Your task to perform on an android device: toggle priority inbox in the gmail app Image 0: 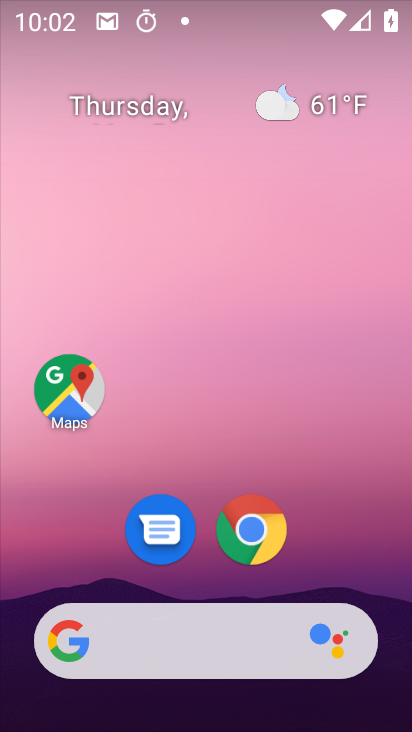
Step 0: drag from (372, 357) to (372, 174)
Your task to perform on an android device: toggle priority inbox in the gmail app Image 1: 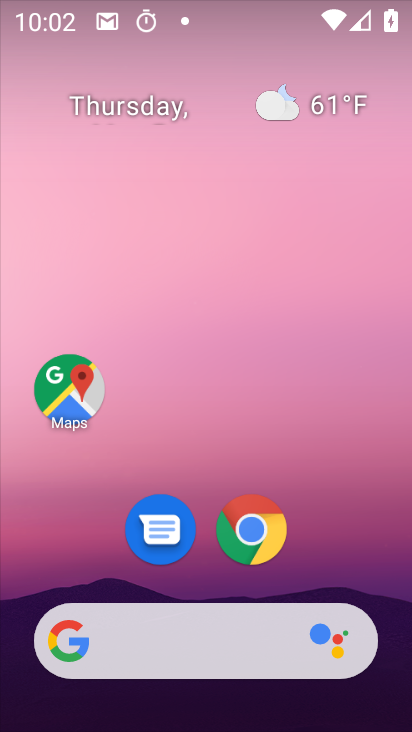
Step 1: drag from (393, 626) to (373, 262)
Your task to perform on an android device: toggle priority inbox in the gmail app Image 2: 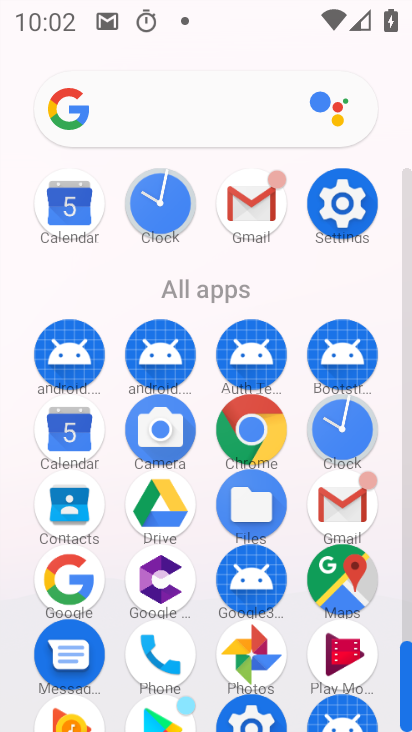
Step 2: click (354, 496)
Your task to perform on an android device: toggle priority inbox in the gmail app Image 3: 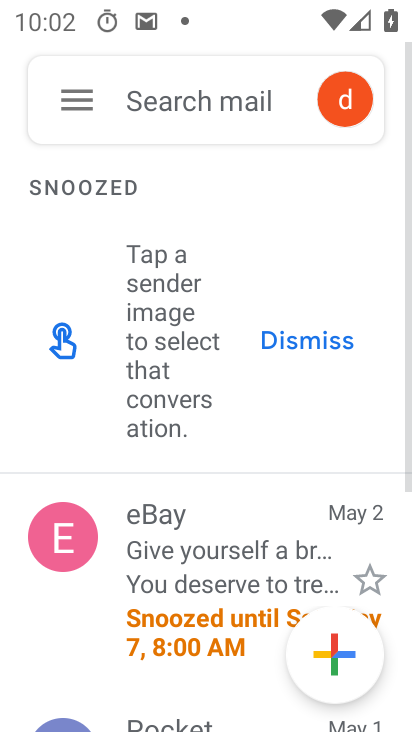
Step 3: click (90, 103)
Your task to perform on an android device: toggle priority inbox in the gmail app Image 4: 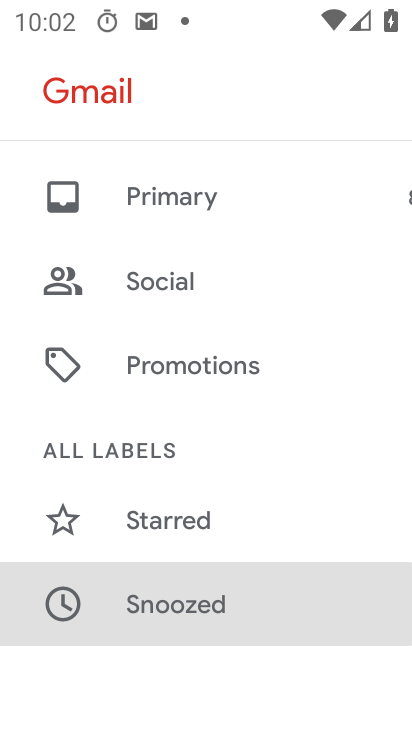
Step 4: drag from (319, 544) to (327, 168)
Your task to perform on an android device: toggle priority inbox in the gmail app Image 5: 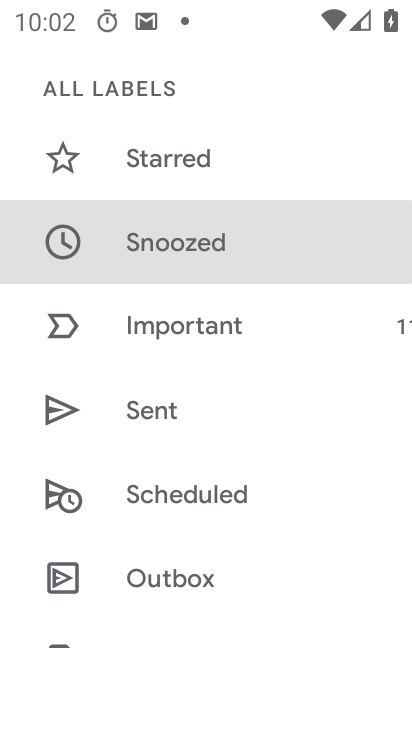
Step 5: drag from (325, 508) to (322, 297)
Your task to perform on an android device: toggle priority inbox in the gmail app Image 6: 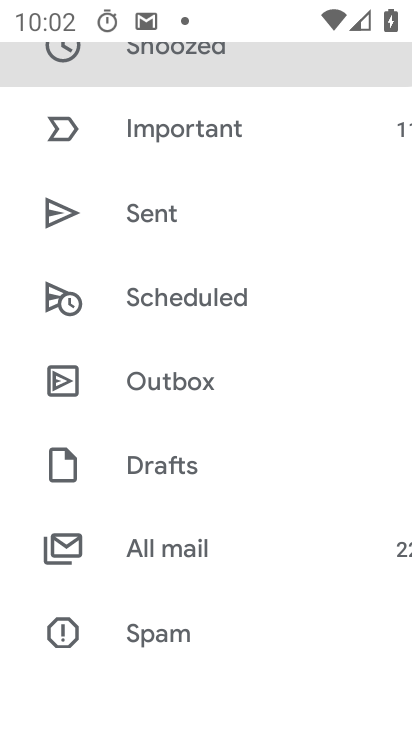
Step 6: drag from (320, 553) to (324, 362)
Your task to perform on an android device: toggle priority inbox in the gmail app Image 7: 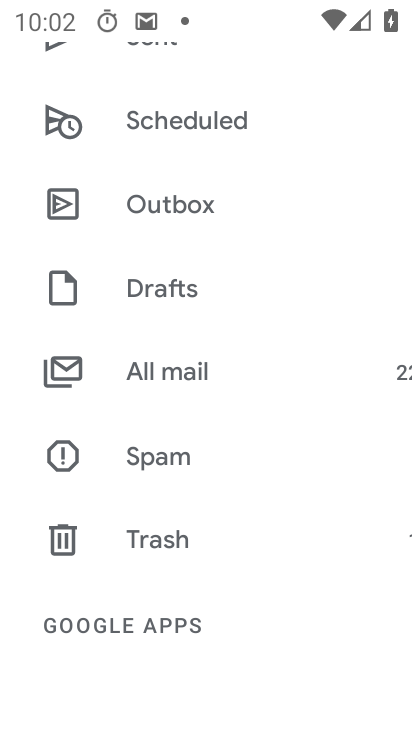
Step 7: drag from (313, 507) to (313, 373)
Your task to perform on an android device: toggle priority inbox in the gmail app Image 8: 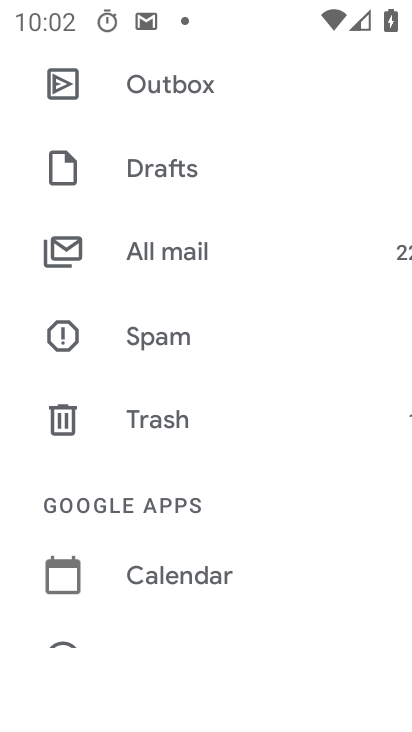
Step 8: drag from (301, 598) to (312, 304)
Your task to perform on an android device: toggle priority inbox in the gmail app Image 9: 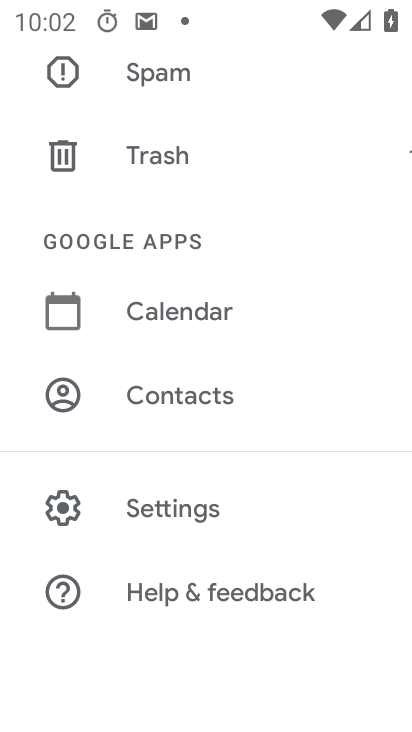
Step 9: click (169, 500)
Your task to perform on an android device: toggle priority inbox in the gmail app Image 10: 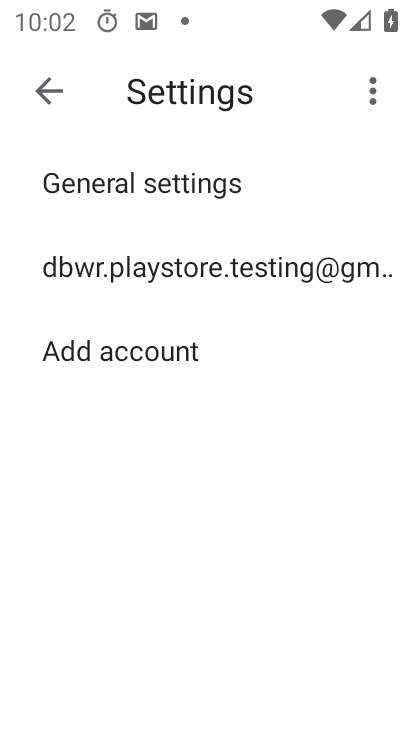
Step 10: click (138, 261)
Your task to perform on an android device: toggle priority inbox in the gmail app Image 11: 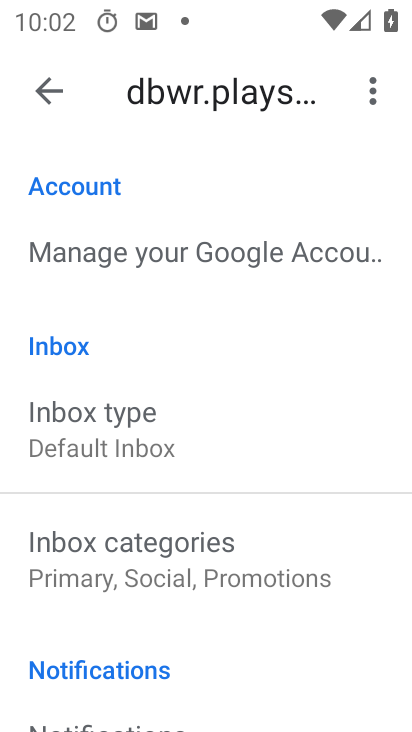
Step 11: drag from (281, 563) to (271, 334)
Your task to perform on an android device: toggle priority inbox in the gmail app Image 12: 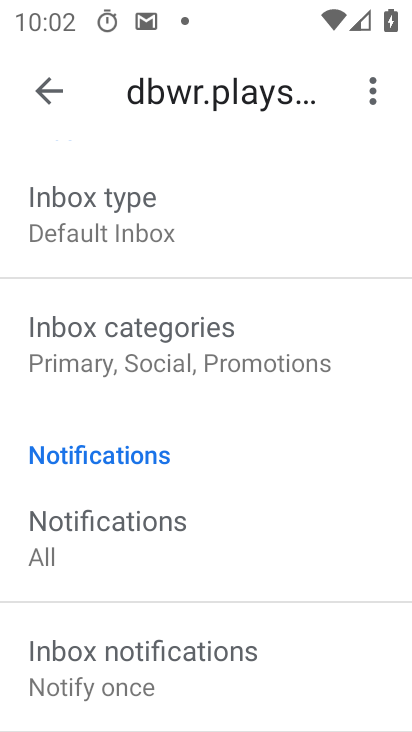
Step 12: click (122, 346)
Your task to perform on an android device: toggle priority inbox in the gmail app Image 13: 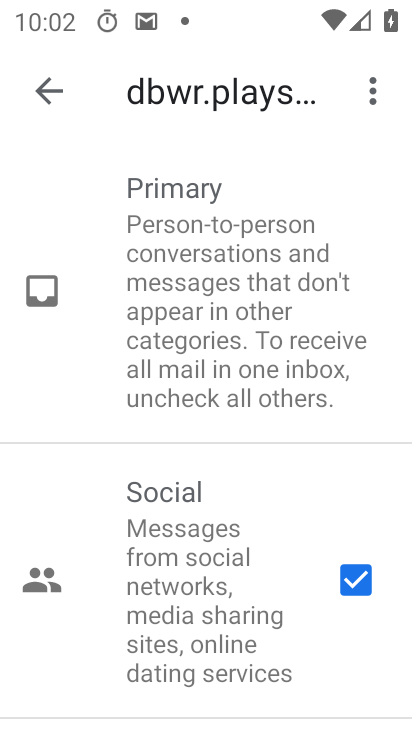
Step 13: click (40, 90)
Your task to perform on an android device: toggle priority inbox in the gmail app Image 14: 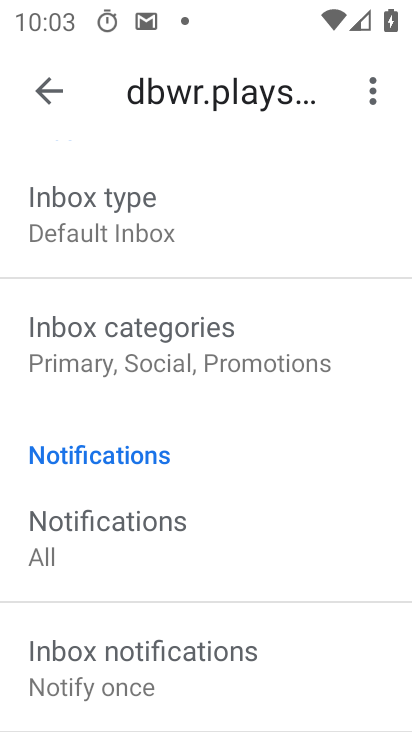
Step 14: click (99, 219)
Your task to perform on an android device: toggle priority inbox in the gmail app Image 15: 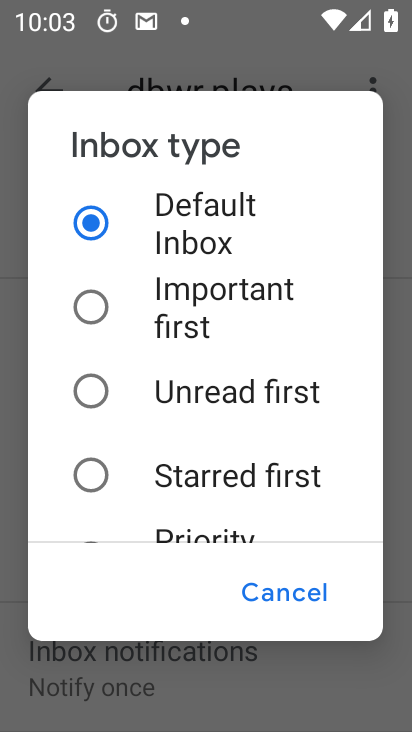
Step 15: drag from (136, 517) to (129, 240)
Your task to perform on an android device: toggle priority inbox in the gmail app Image 16: 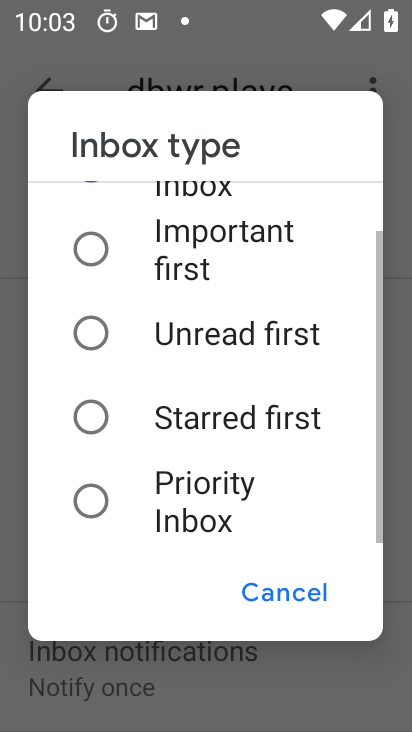
Step 16: click (75, 497)
Your task to perform on an android device: toggle priority inbox in the gmail app Image 17: 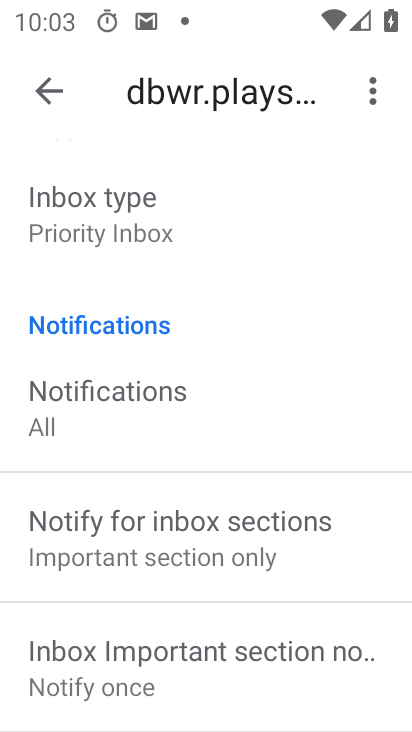
Step 17: task complete